Your task to perform on an android device: Open calendar and show me the fourth week of next month Image 0: 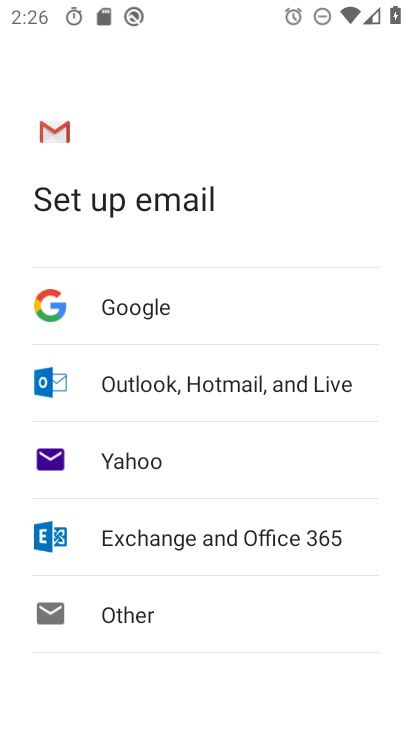
Step 0: press home button
Your task to perform on an android device: Open calendar and show me the fourth week of next month Image 1: 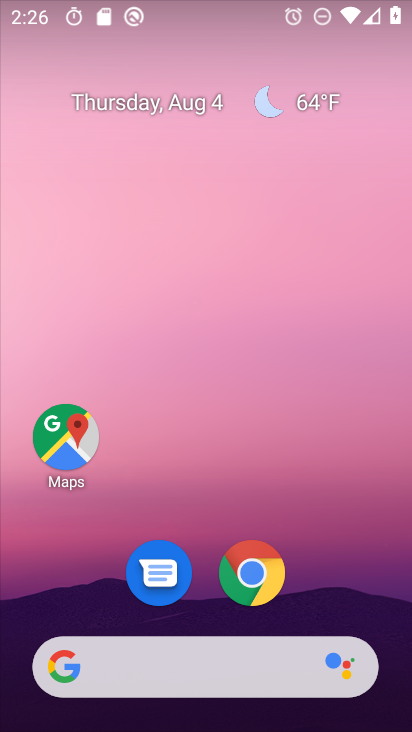
Step 1: drag from (352, 593) to (305, 190)
Your task to perform on an android device: Open calendar and show me the fourth week of next month Image 2: 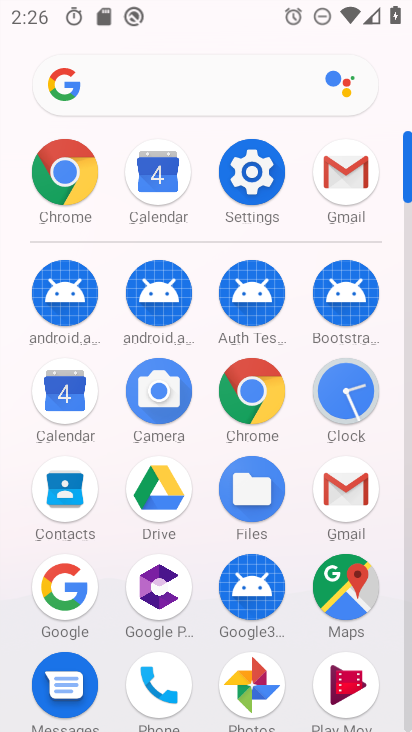
Step 2: click (59, 400)
Your task to perform on an android device: Open calendar and show me the fourth week of next month Image 3: 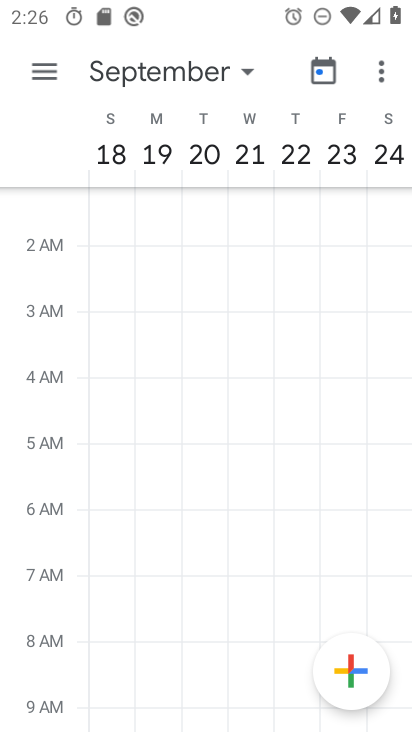
Step 3: click (231, 80)
Your task to perform on an android device: Open calendar and show me the fourth week of next month Image 4: 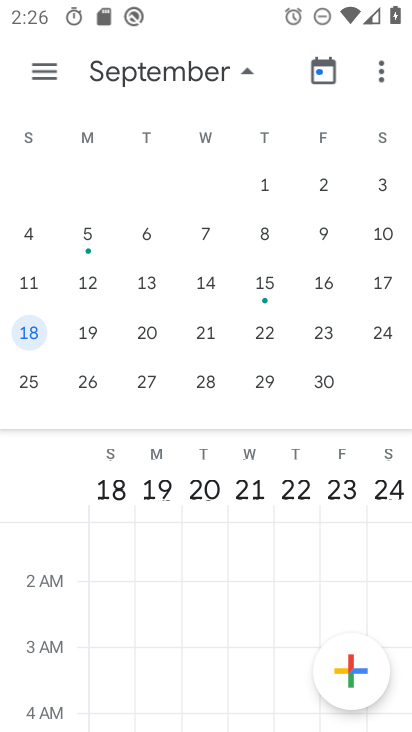
Step 4: click (161, 378)
Your task to perform on an android device: Open calendar and show me the fourth week of next month Image 5: 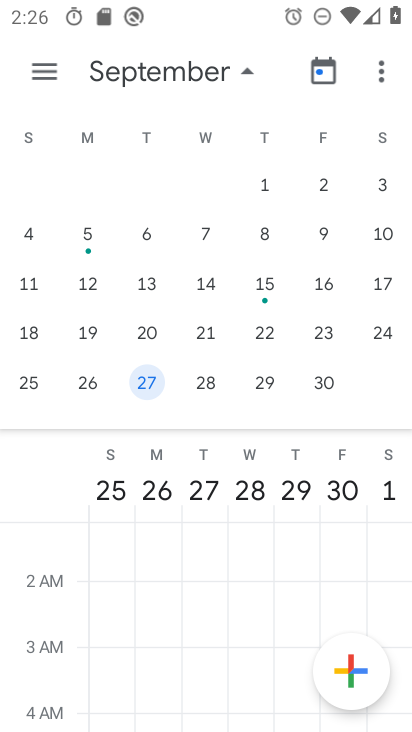
Step 5: task complete